Your task to perform on an android device: turn on data saver in the chrome app Image 0: 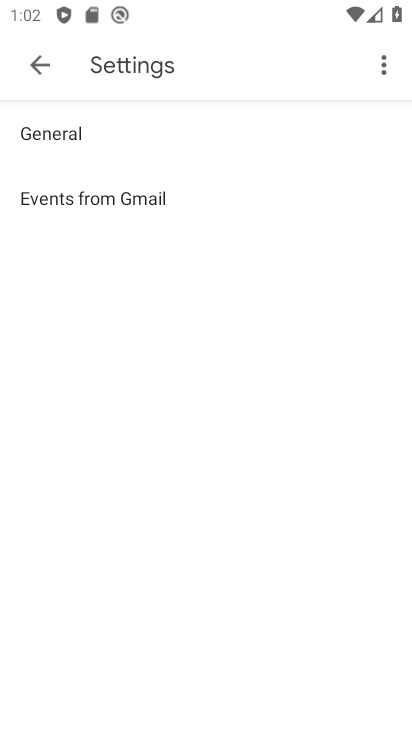
Step 0: press home button
Your task to perform on an android device: turn on data saver in the chrome app Image 1: 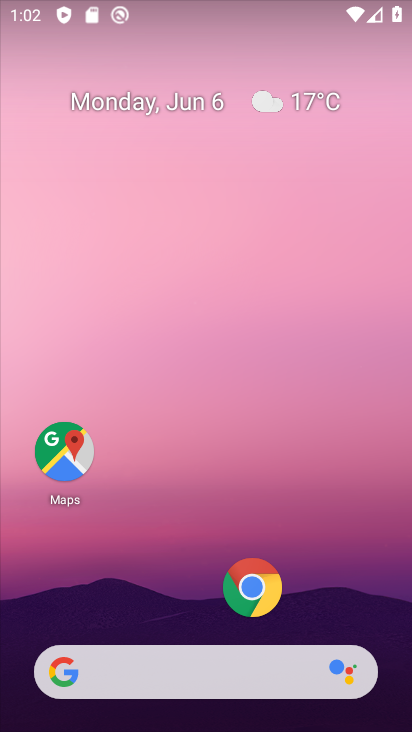
Step 1: click (247, 584)
Your task to perform on an android device: turn on data saver in the chrome app Image 2: 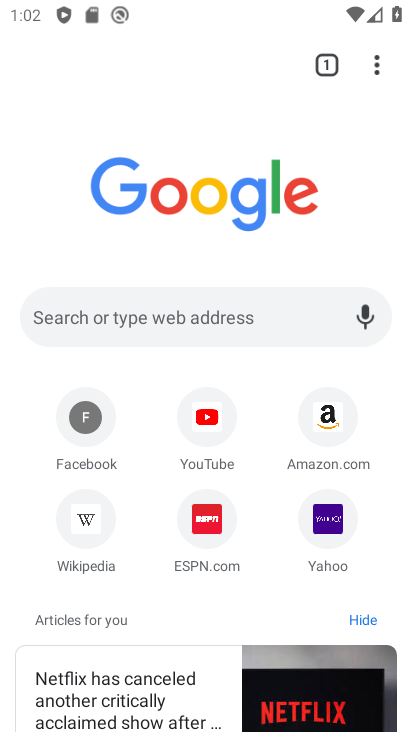
Step 2: click (377, 75)
Your task to perform on an android device: turn on data saver in the chrome app Image 3: 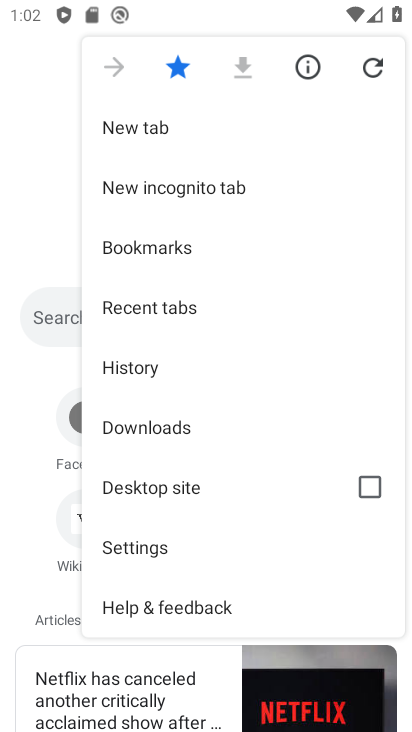
Step 3: drag from (184, 521) to (191, 462)
Your task to perform on an android device: turn on data saver in the chrome app Image 4: 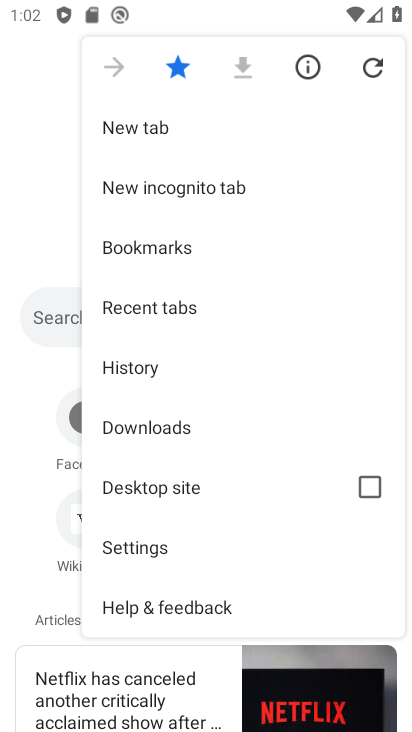
Step 4: click (164, 540)
Your task to perform on an android device: turn on data saver in the chrome app Image 5: 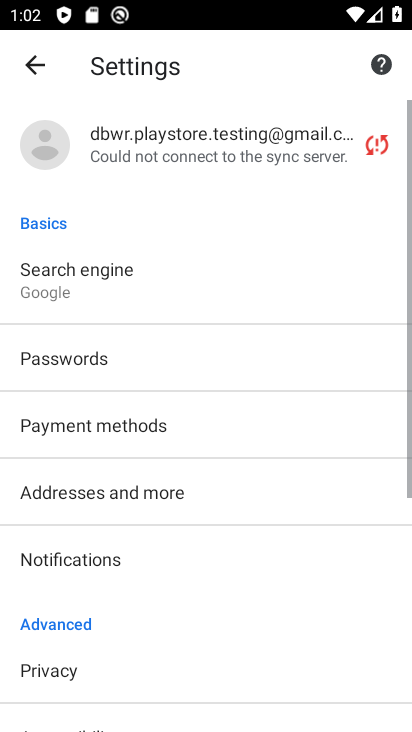
Step 5: drag from (164, 585) to (226, 311)
Your task to perform on an android device: turn on data saver in the chrome app Image 6: 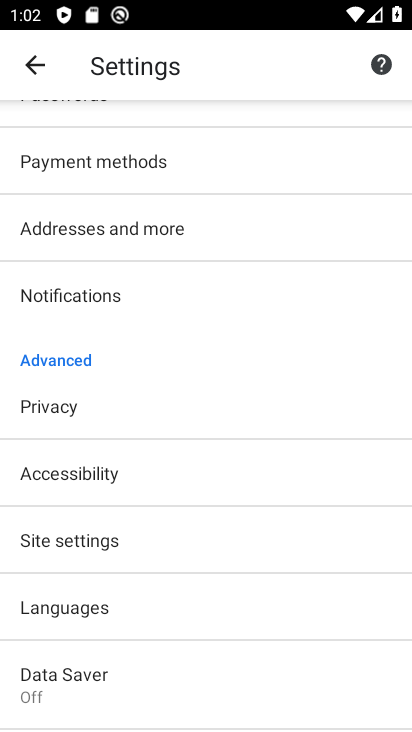
Step 6: click (99, 693)
Your task to perform on an android device: turn on data saver in the chrome app Image 7: 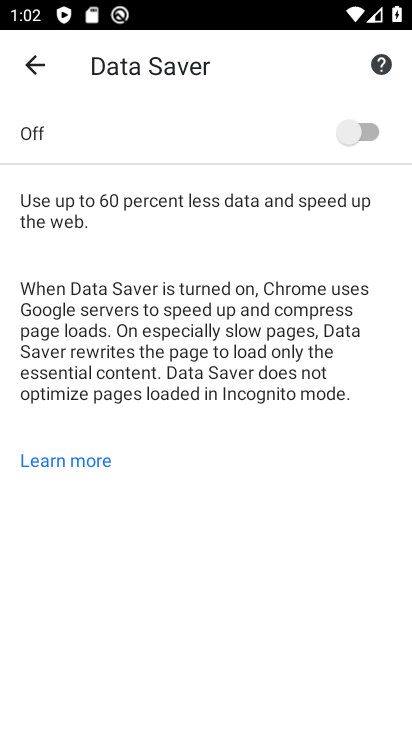
Step 7: click (380, 141)
Your task to perform on an android device: turn on data saver in the chrome app Image 8: 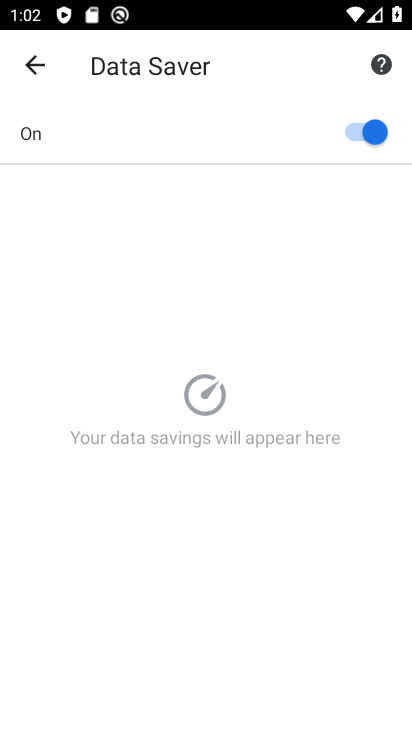
Step 8: task complete